Your task to perform on an android device: Open Chrome and go to settings Image 0: 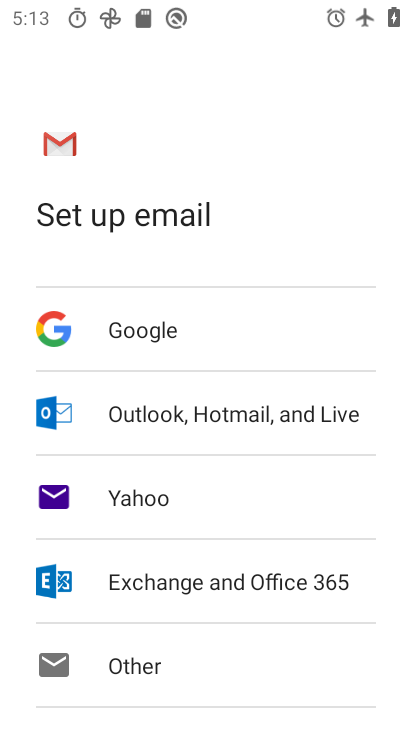
Step 0: press home button
Your task to perform on an android device: Open Chrome and go to settings Image 1: 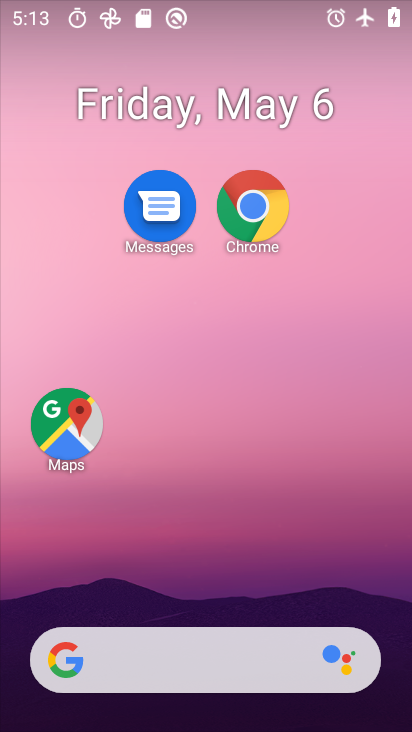
Step 1: drag from (146, 626) to (144, 266)
Your task to perform on an android device: Open Chrome and go to settings Image 2: 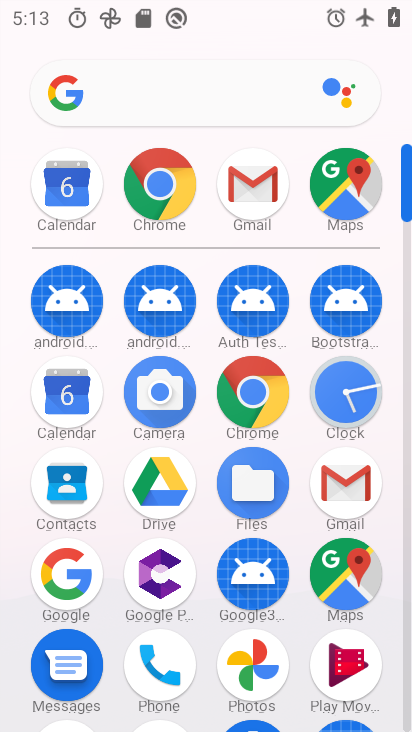
Step 2: click (168, 210)
Your task to perform on an android device: Open Chrome and go to settings Image 3: 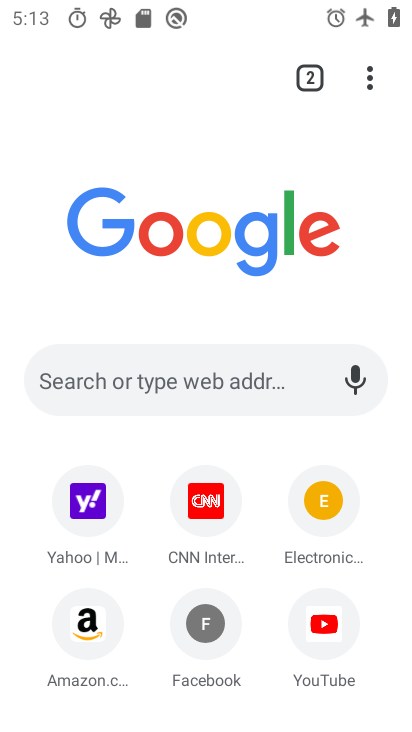
Step 3: click (366, 78)
Your task to perform on an android device: Open Chrome and go to settings Image 4: 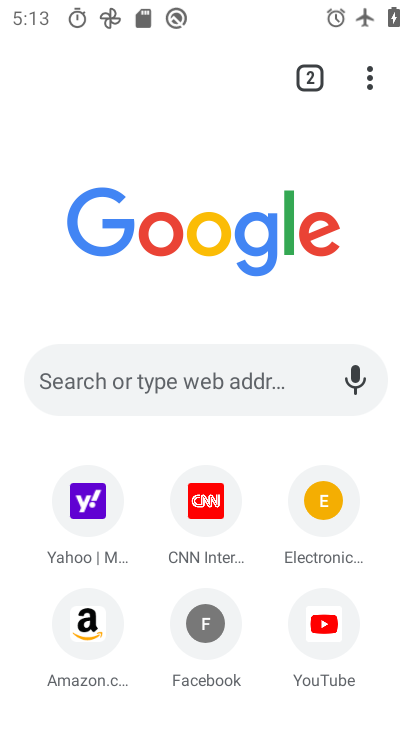
Step 4: click (366, 78)
Your task to perform on an android device: Open Chrome and go to settings Image 5: 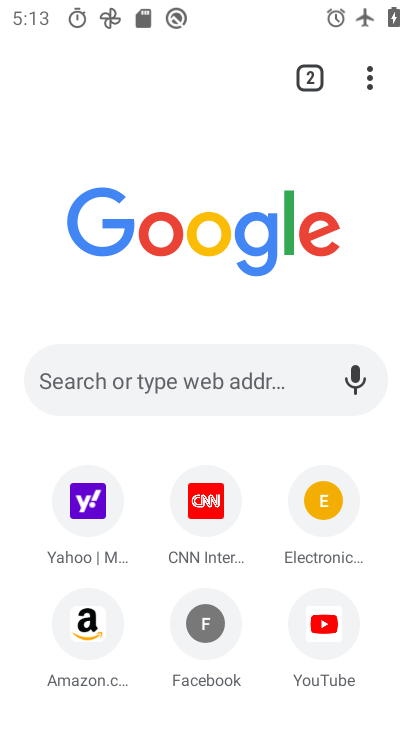
Step 5: click (371, 78)
Your task to perform on an android device: Open Chrome and go to settings Image 6: 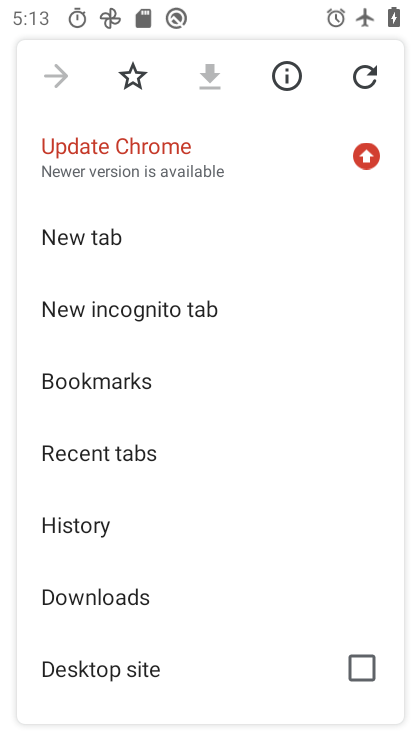
Step 6: drag from (145, 590) to (143, 245)
Your task to perform on an android device: Open Chrome and go to settings Image 7: 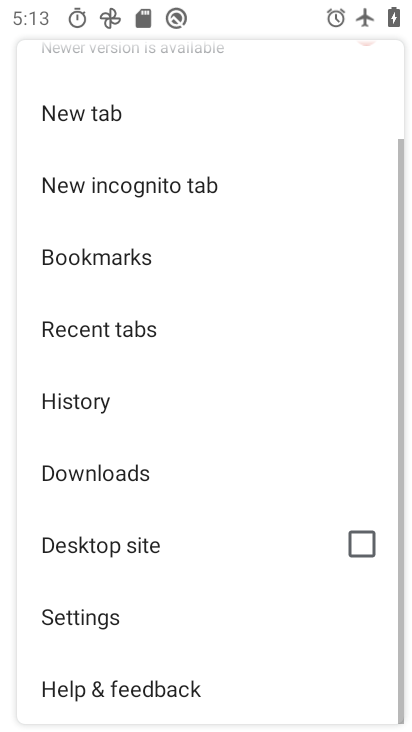
Step 7: click (51, 630)
Your task to perform on an android device: Open Chrome and go to settings Image 8: 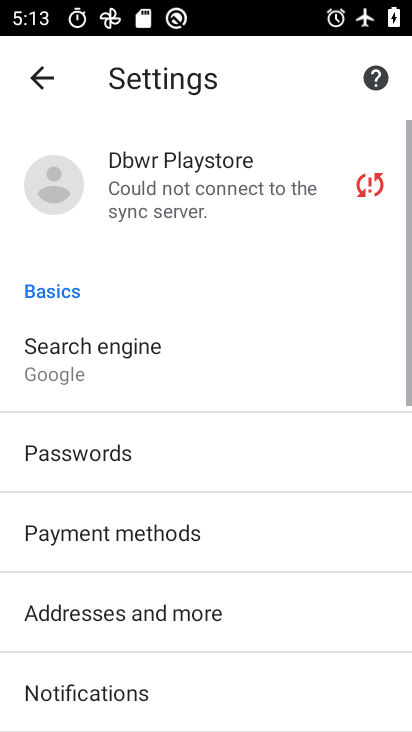
Step 8: task complete